Your task to perform on an android device: Go to Yahoo.com Image 0: 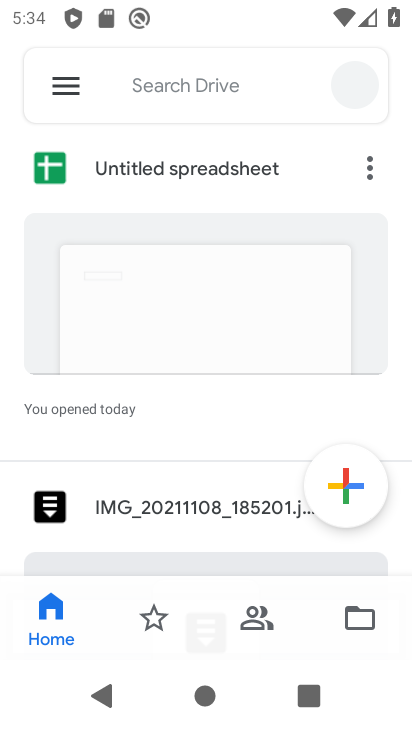
Step 0: press home button
Your task to perform on an android device: Go to Yahoo.com Image 1: 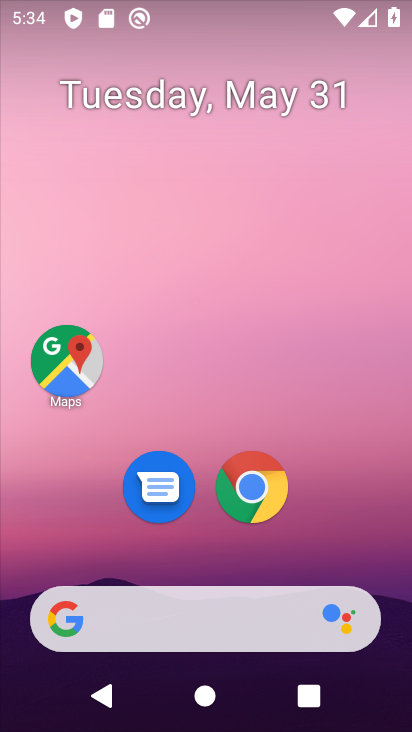
Step 1: click (251, 494)
Your task to perform on an android device: Go to Yahoo.com Image 2: 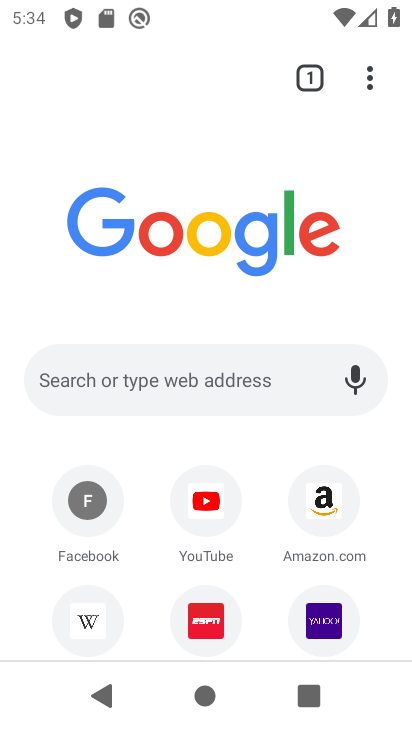
Step 2: click (335, 600)
Your task to perform on an android device: Go to Yahoo.com Image 3: 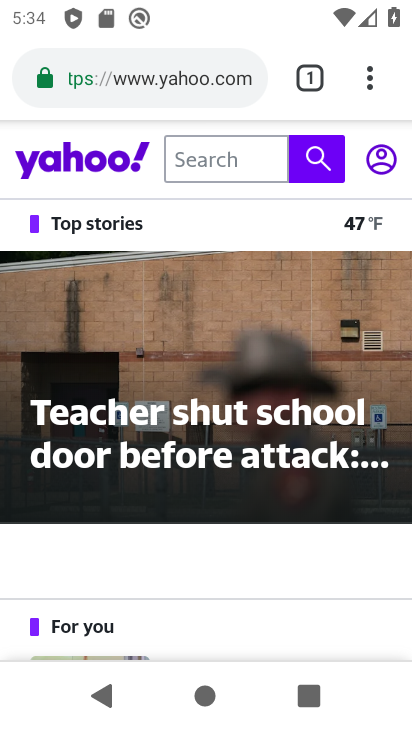
Step 3: task complete